Your task to perform on an android device: toggle improve location accuracy Image 0: 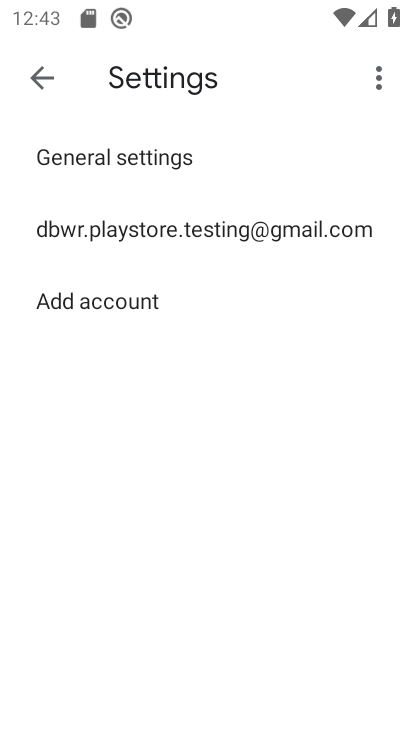
Step 0: press home button
Your task to perform on an android device: toggle improve location accuracy Image 1: 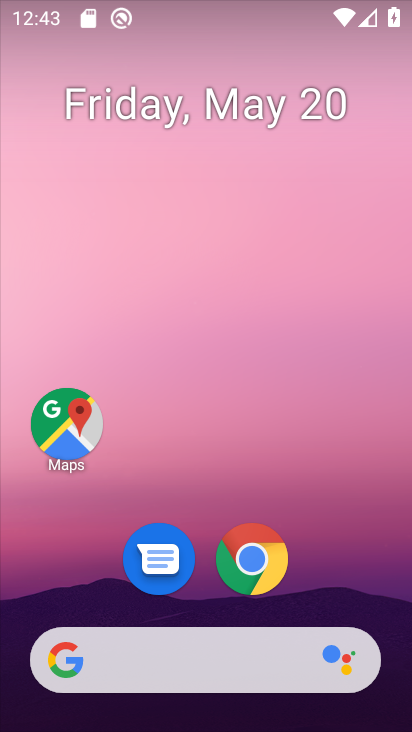
Step 1: drag from (317, 531) to (336, 136)
Your task to perform on an android device: toggle improve location accuracy Image 2: 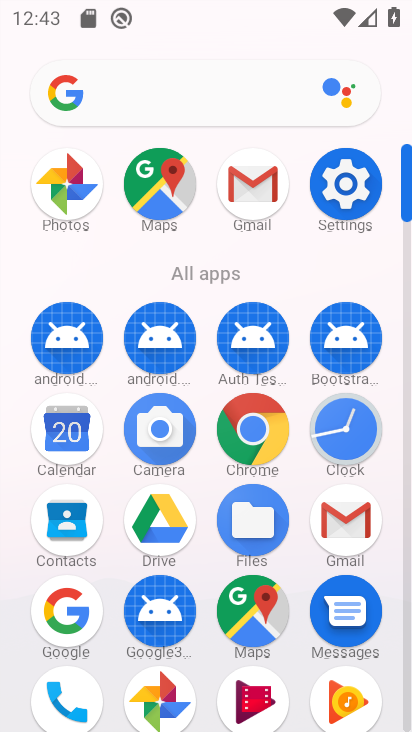
Step 2: click (340, 207)
Your task to perform on an android device: toggle improve location accuracy Image 3: 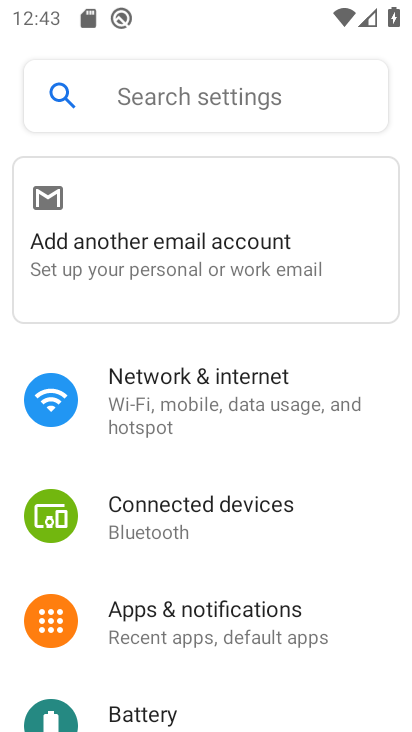
Step 3: drag from (251, 662) to (267, 250)
Your task to perform on an android device: toggle improve location accuracy Image 4: 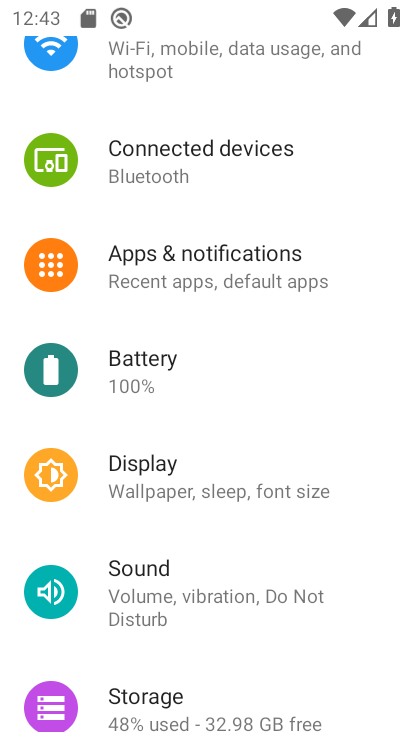
Step 4: drag from (271, 638) to (254, 258)
Your task to perform on an android device: toggle improve location accuracy Image 5: 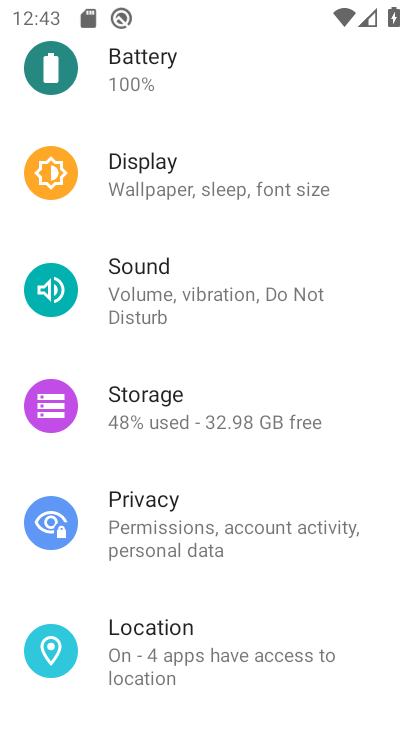
Step 5: click (217, 643)
Your task to perform on an android device: toggle improve location accuracy Image 6: 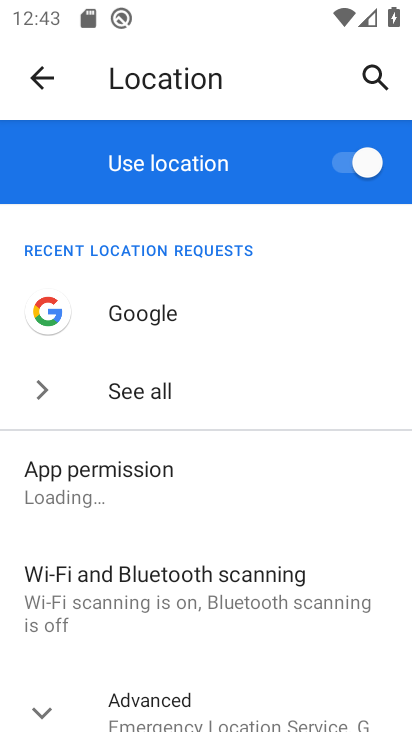
Step 6: drag from (211, 643) to (221, 256)
Your task to perform on an android device: toggle improve location accuracy Image 7: 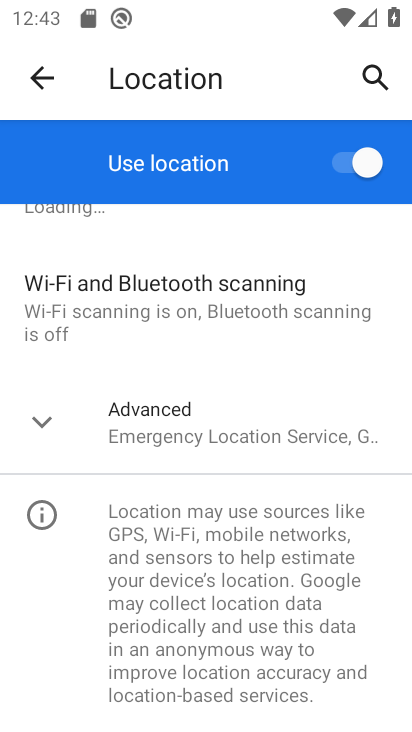
Step 7: click (35, 427)
Your task to perform on an android device: toggle improve location accuracy Image 8: 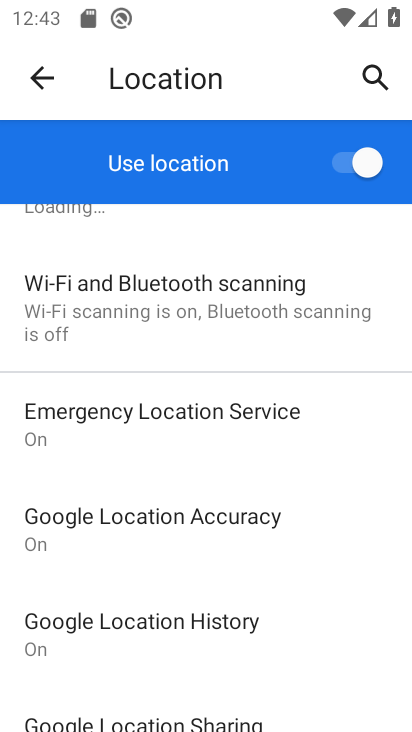
Step 8: click (149, 522)
Your task to perform on an android device: toggle improve location accuracy Image 9: 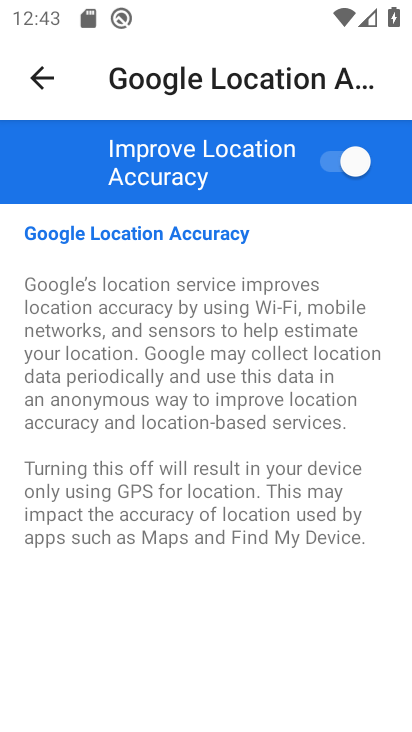
Step 9: click (340, 170)
Your task to perform on an android device: toggle improve location accuracy Image 10: 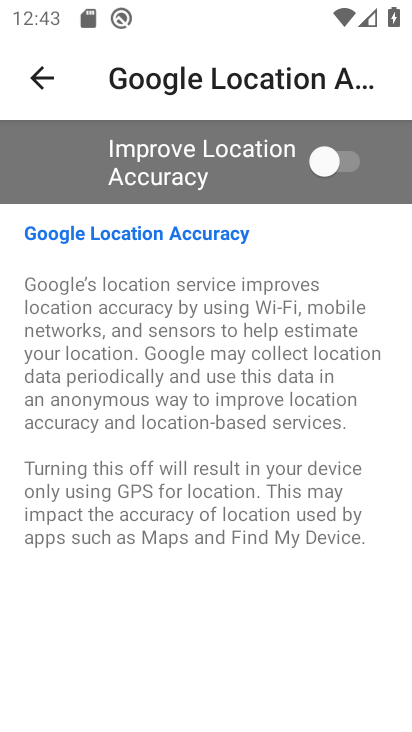
Step 10: task complete